Your task to perform on an android device: turn off priority inbox in the gmail app Image 0: 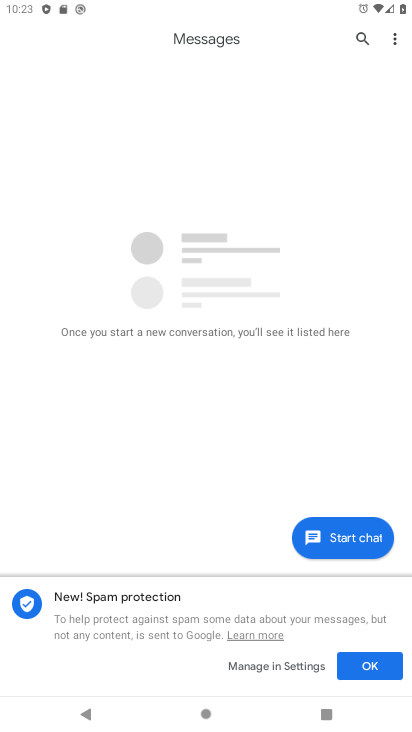
Step 0: press home button
Your task to perform on an android device: turn off priority inbox in the gmail app Image 1: 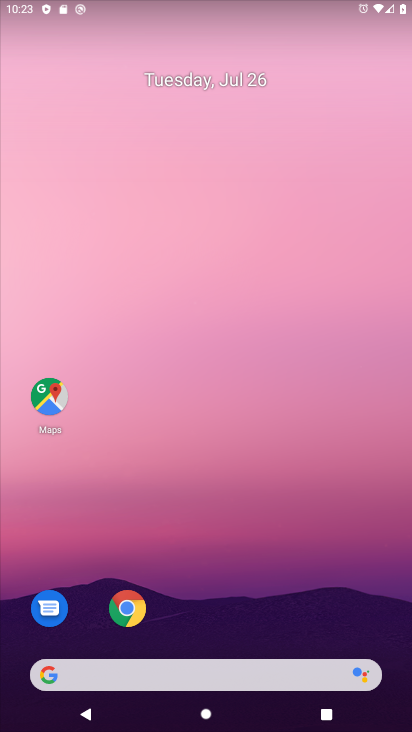
Step 1: drag from (252, 723) to (252, 101)
Your task to perform on an android device: turn off priority inbox in the gmail app Image 2: 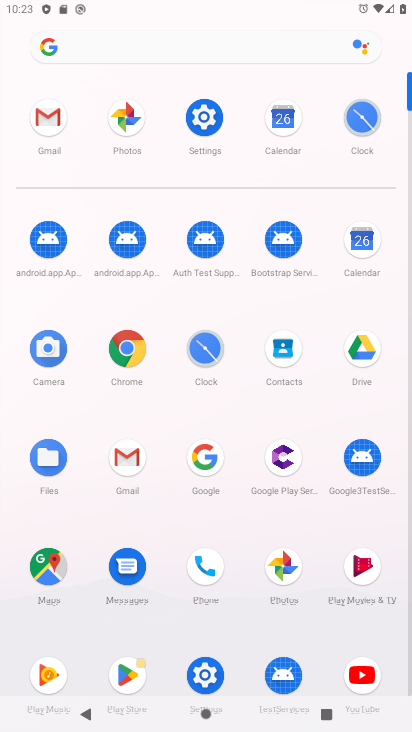
Step 2: click (121, 457)
Your task to perform on an android device: turn off priority inbox in the gmail app Image 3: 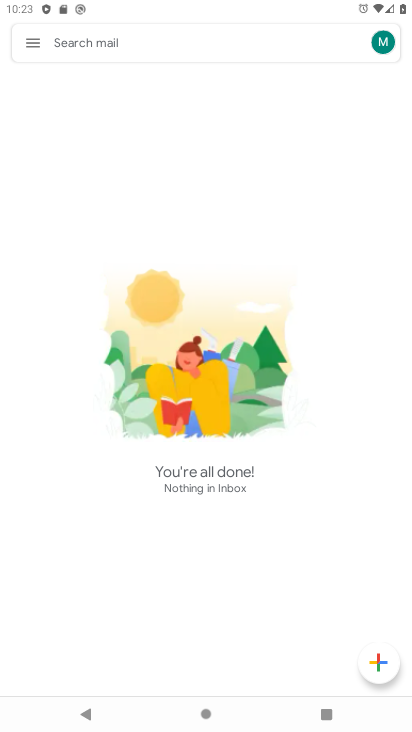
Step 3: click (33, 43)
Your task to perform on an android device: turn off priority inbox in the gmail app Image 4: 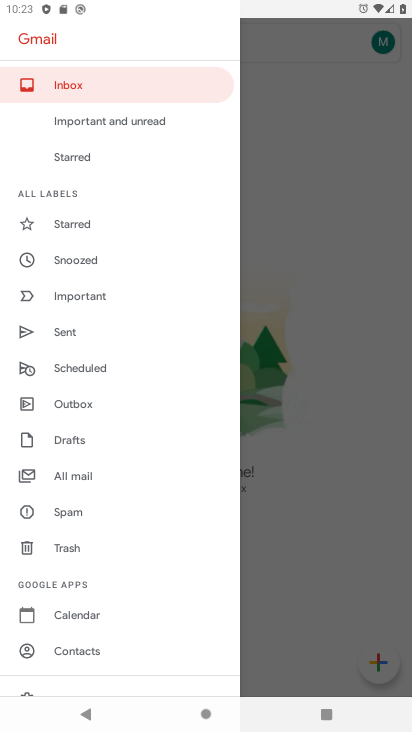
Step 4: drag from (93, 663) to (111, 422)
Your task to perform on an android device: turn off priority inbox in the gmail app Image 5: 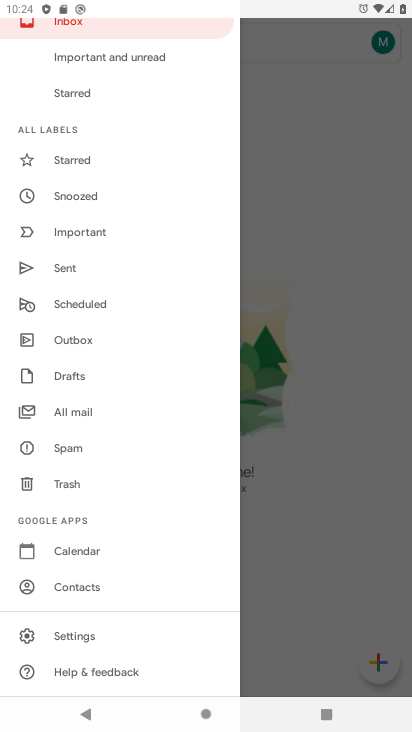
Step 5: click (83, 640)
Your task to perform on an android device: turn off priority inbox in the gmail app Image 6: 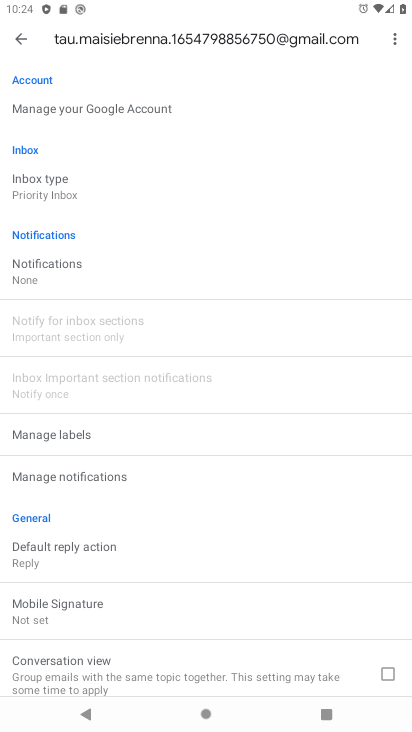
Step 6: click (38, 182)
Your task to perform on an android device: turn off priority inbox in the gmail app Image 7: 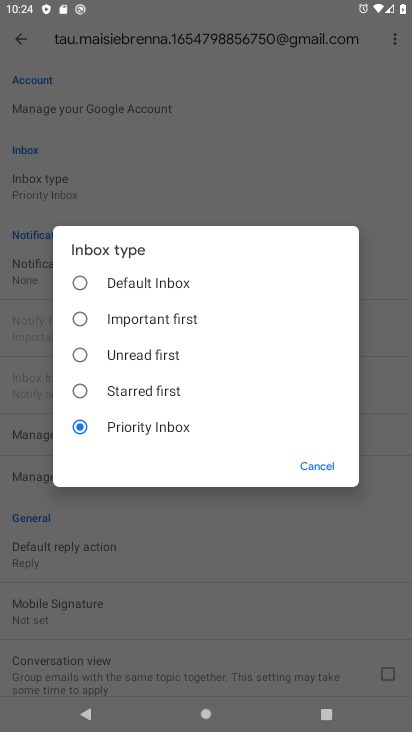
Step 7: click (81, 282)
Your task to perform on an android device: turn off priority inbox in the gmail app Image 8: 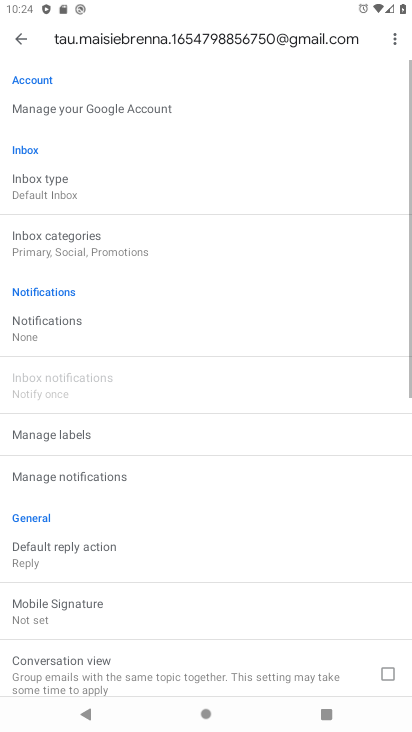
Step 8: task complete